Your task to perform on an android device: add a label to a message in the gmail app Image 0: 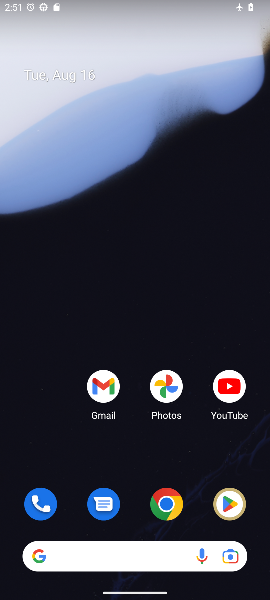
Step 0: click (104, 390)
Your task to perform on an android device: add a label to a message in the gmail app Image 1: 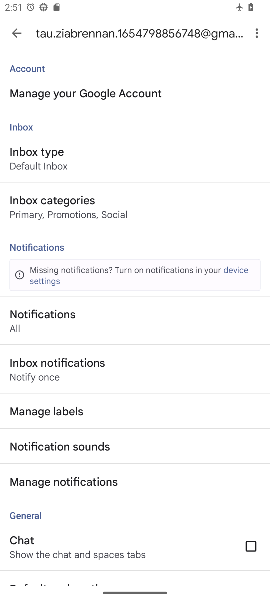
Step 1: click (20, 36)
Your task to perform on an android device: add a label to a message in the gmail app Image 2: 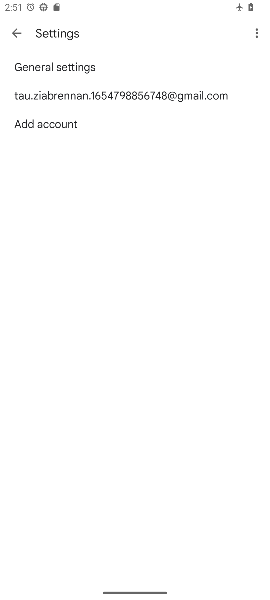
Step 2: click (20, 36)
Your task to perform on an android device: add a label to a message in the gmail app Image 3: 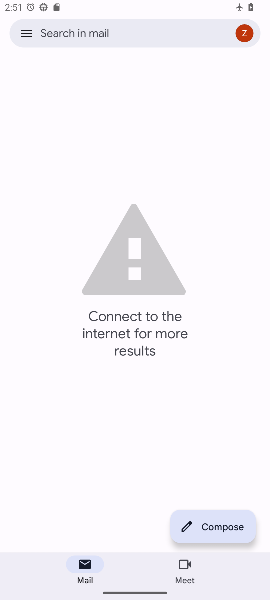
Step 3: click (18, 24)
Your task to perform on an android device: add a label to a message in the gmail app Image 4: 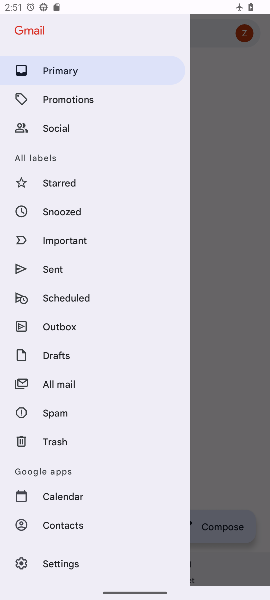
Step 4: click (23, 31)
Your task to perform on an android device: add a label to a message in the gmail app Image 5: 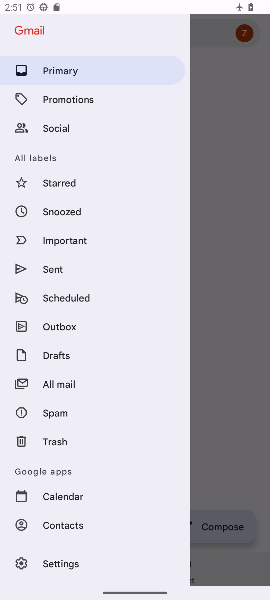
Step 5: click (51, 381)
Your task to perform on an android device: add a label to a message in the gmail app Image 6: 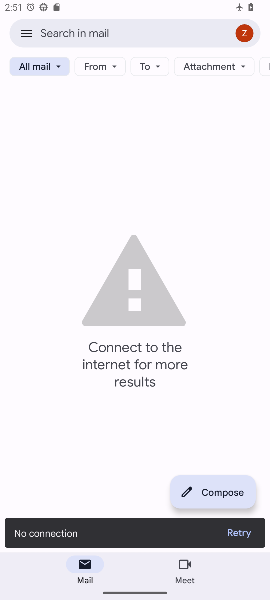
Step 6: task complete